Your task to perform on an android device: set an alarm Image 0: 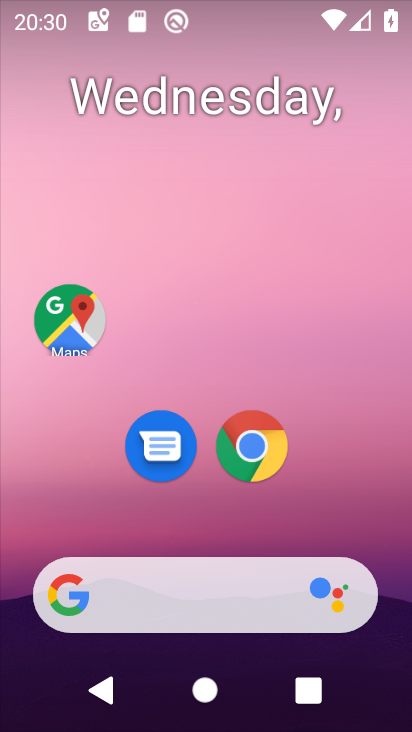
Step 0: drag from (210, 547) to (239, 142)
Your task to perform on an android device: set an alarm Image 1: 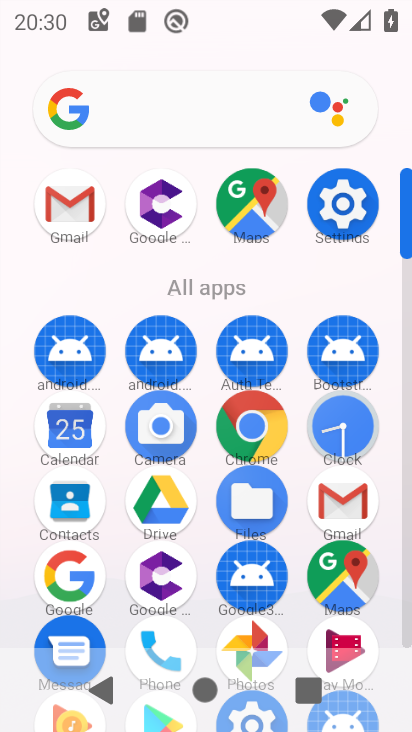
Step 1: click (331, 430)
Your task to perform on an android device: set an alarm Image 2: 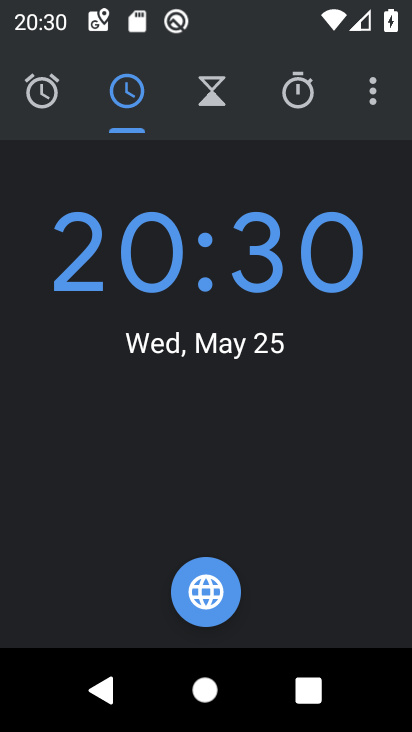
Step 2: click (43, 104)
Your task to perform on an android device: set an alarm Image 3: 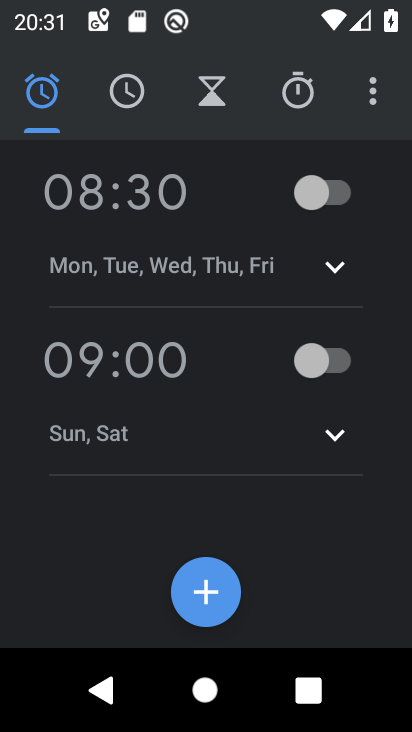
Step 3: click (205, 612)
Your task to perform on an android device: set an alarm Image 4: 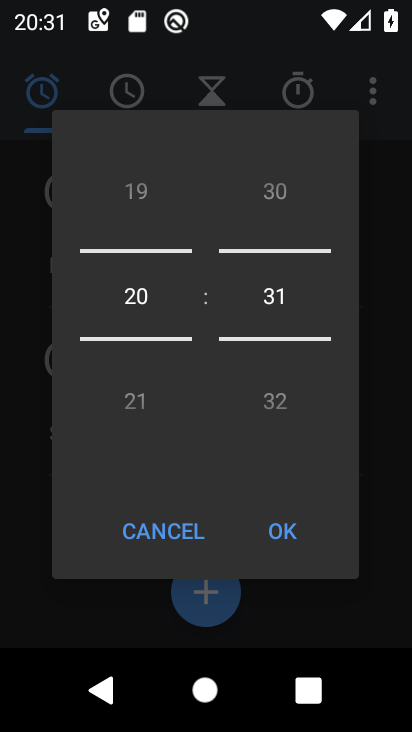
Step 4: drag from (158, 357) to (125, 10)
Your task to perform on an android device: set an alarm Image 5: 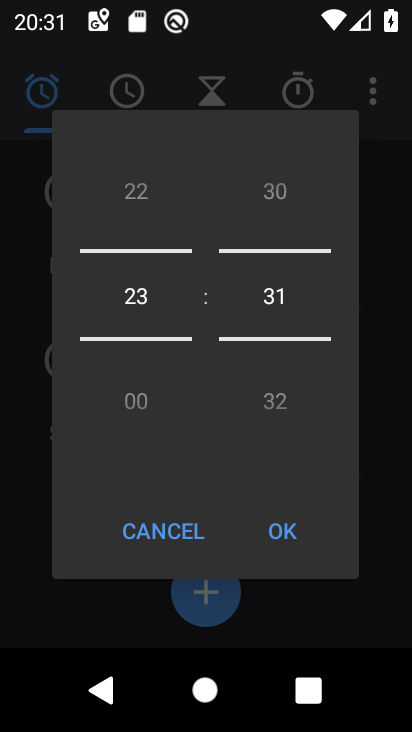
Step 5: click (267, 526)
Your task to perform on an android device: set an alarm Image 6: 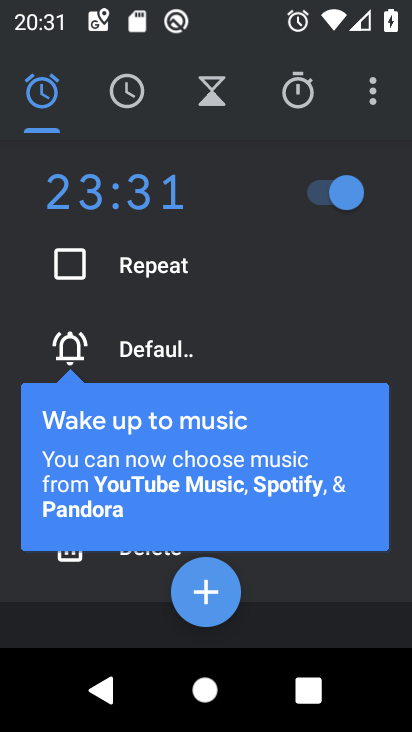
Step 6: task complete